Your task to perform on an android device: Show me recent news Image 0: 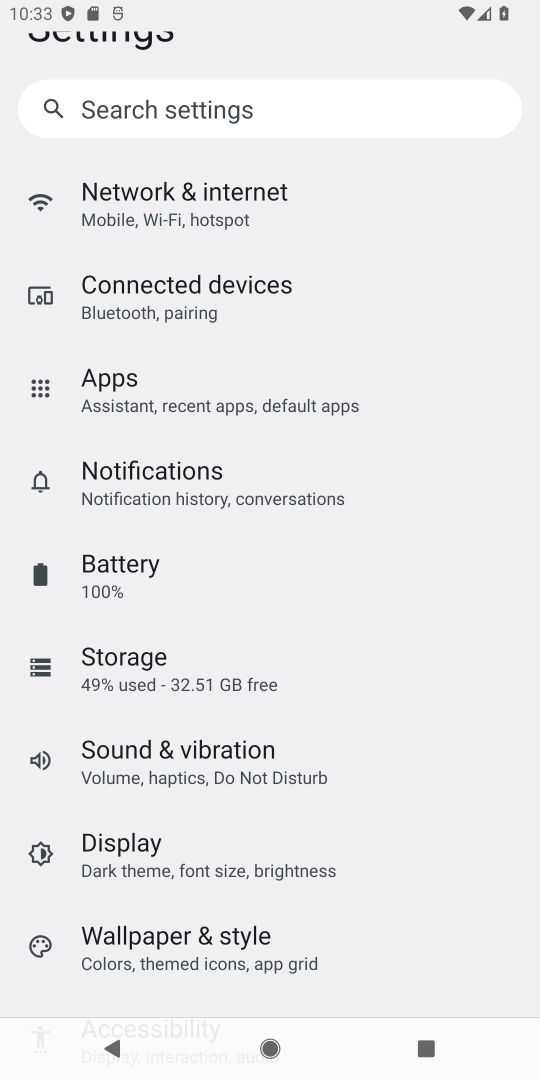
Step 0: press home button
Your task to perform on an android device: Show me recent news Image 1: 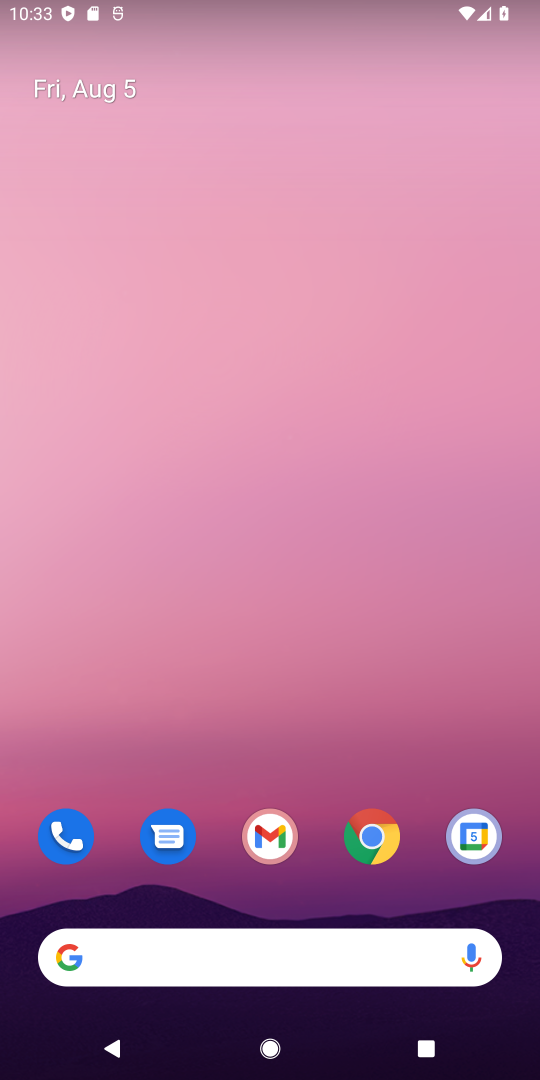
Step 1: drag from (386, 683) to (321, 140)
Your task to perform on an android device: Show me recent news Image 2: 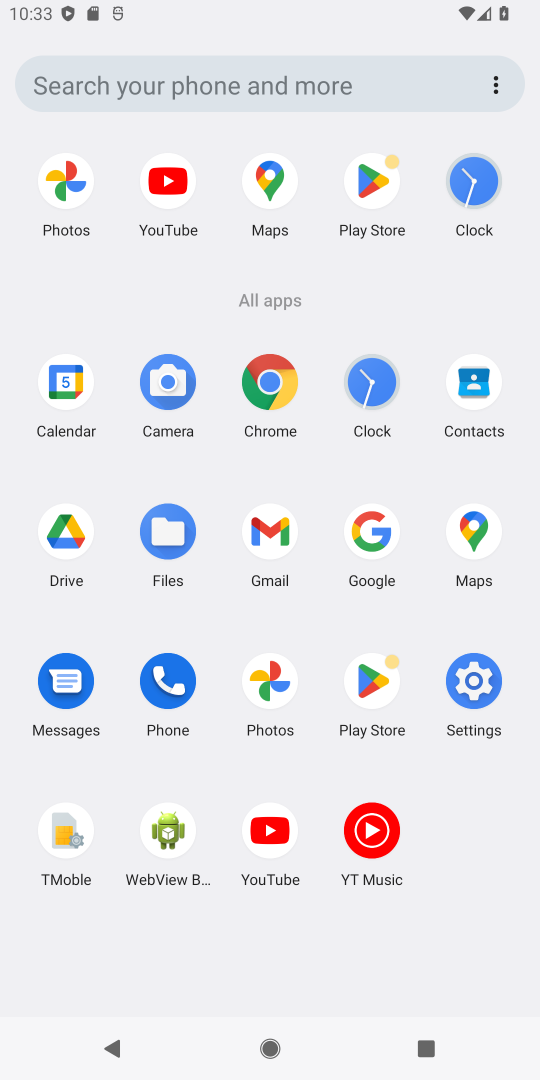
Step 2: click (273, 375)
Your task to perform on an android device: Show me recent news Image 3: 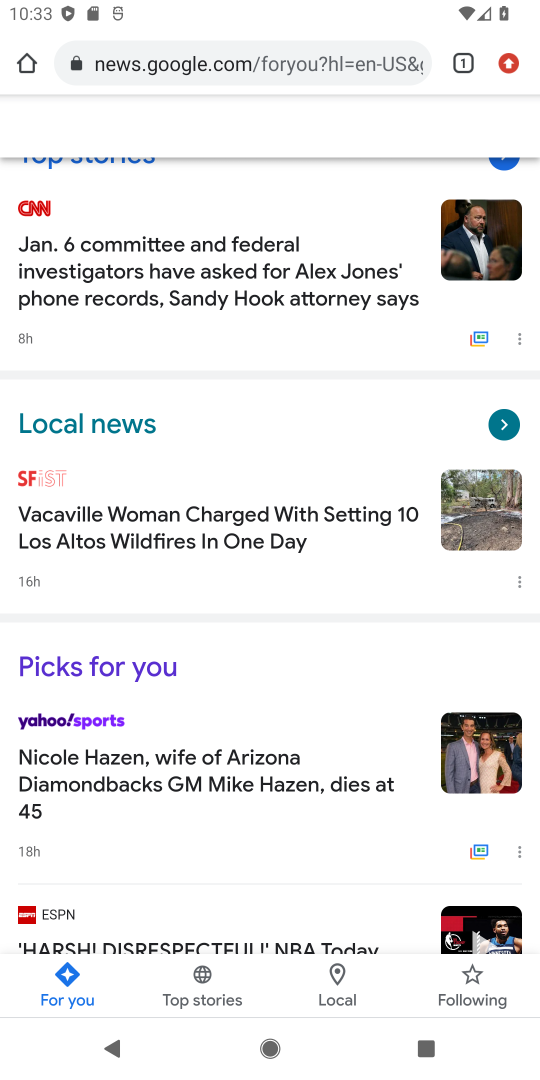
Step 3: task complete